Your task to perform on an android device: Open Youtube and go to "Your channel" Image 0: 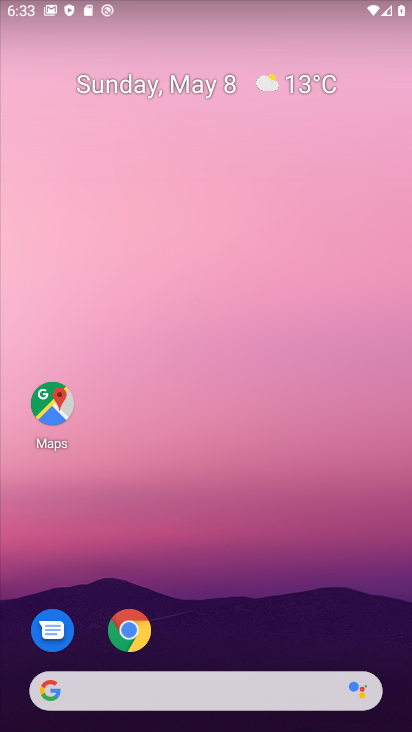
Step 0: drag from (211, 604) to (171, 123)
Your task to perform on an android device: Open Youtube and go to "Your channel" Image 1: 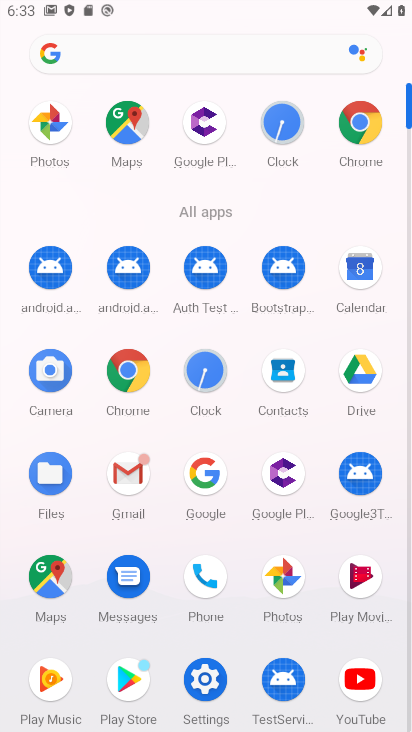
Step 1: click (362, 682)
Your task to perform on an android device: Open Youtube and go to "Your channel" Image 2: 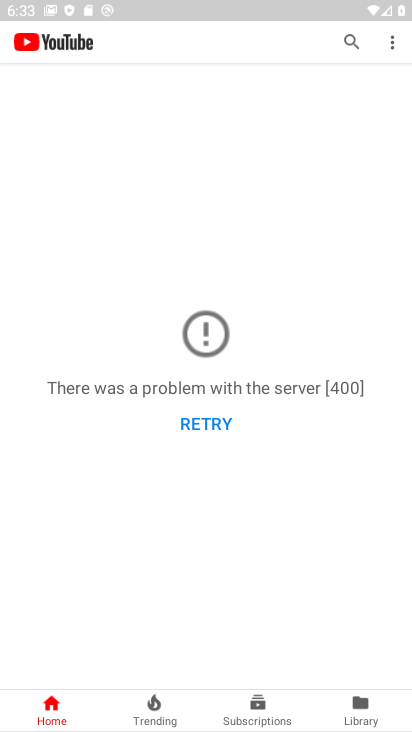
Step 2: click (205, 422)
Your task to perform on an android device: Open Youtube and go to "Your channel" Image 3: 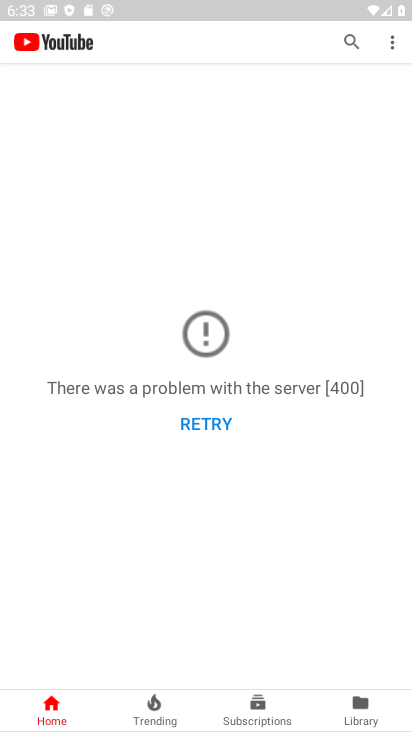
Step 3: click (205, 422)
Your task to perform on an android device: Open Youtube and go to "Your channel" Image 4: 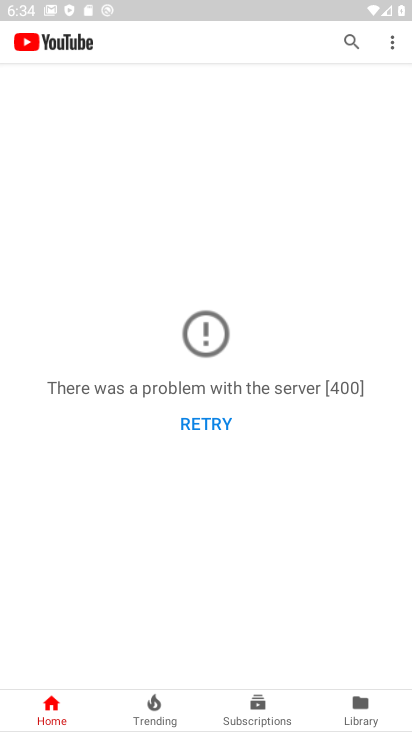
Step 4: task complete